Your task to perform on an android device: Open CNN.com Image 0: 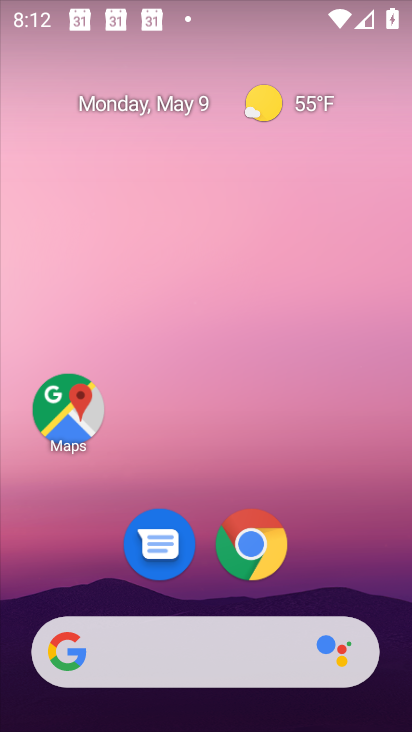
Step 0: click (245, 524)
Your task to perform on an android device: Open CNN.com Image 1: 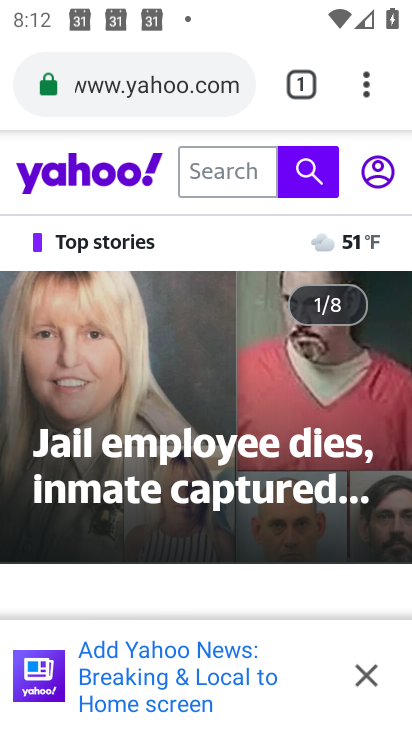
Step 1: click (309, 84)
Your task to perform on an android device: Open CNN.com Image 2: 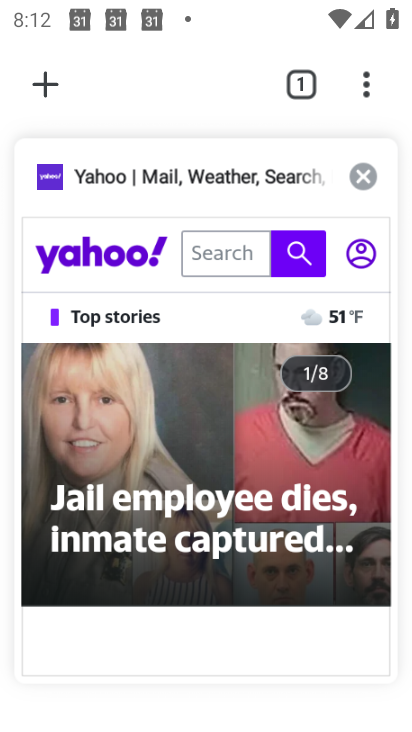
Step 2: click (47, 85)
Your task to perform on an android device: Open CNN.com Image 3: 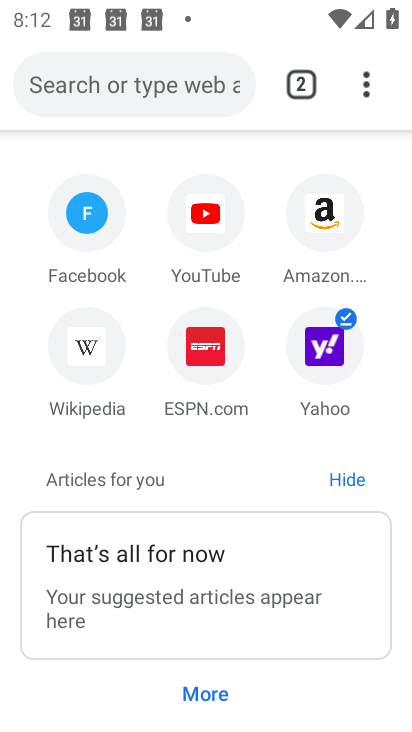
Step 3: click (153, 52)
Your task to perform on an android device: Open CNN.com Image 4: 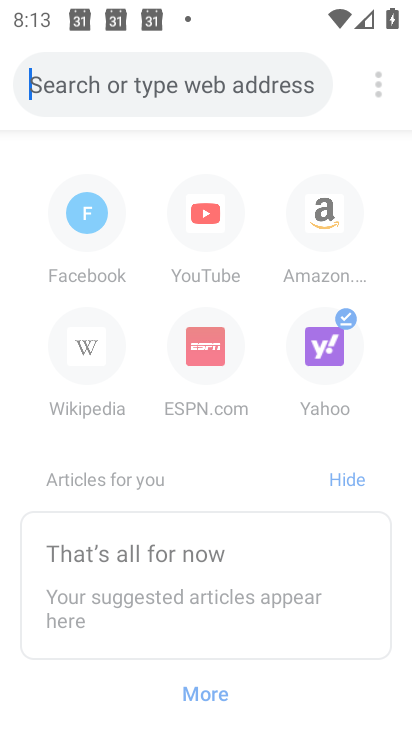
Step 4: click (154, 79)
Your task to perform on an android device: Open CNN.com Image 5: 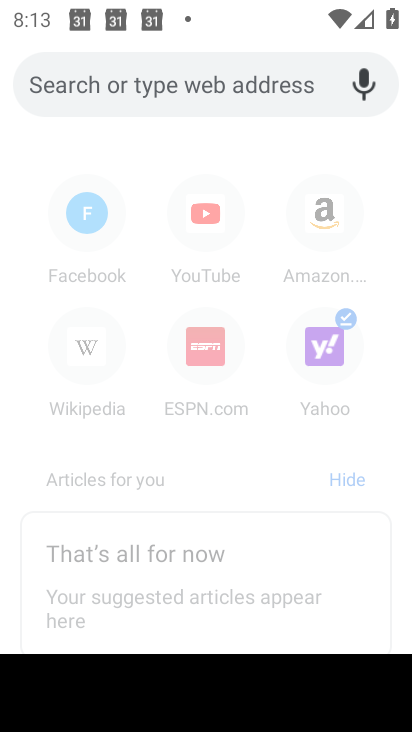
Step 5: type "CNN.com"
Your task to perform on an android device: Open CNN.com Image 6: 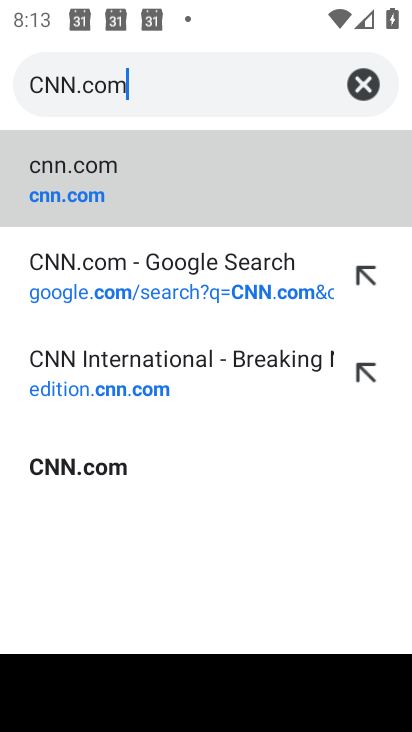
Step 6: click (196, 165)
Your task to perform on an android device: Open CNN.com Image 7: 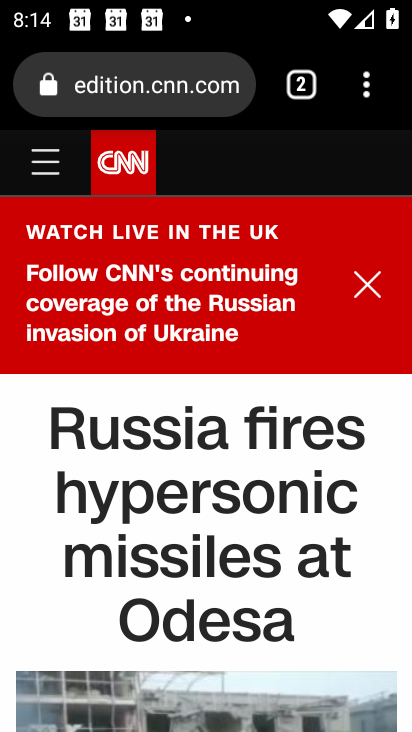
Step 7: task complete